Your task to perform on an android device: Open Chrome and go to settings Image 0: 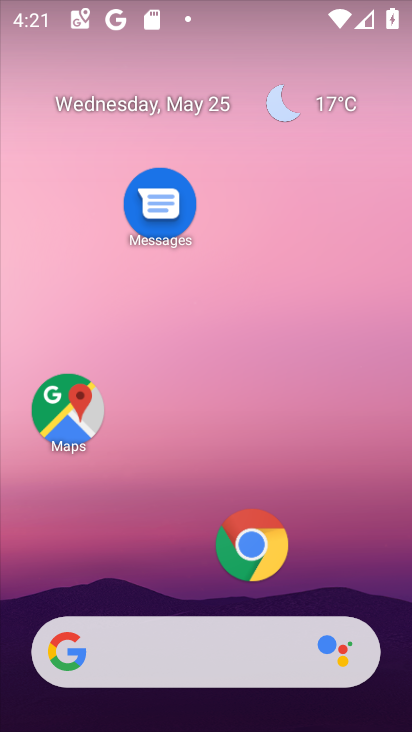
Step 0: click (266, 561)
Your task to perform on an android device: Open Chrome and go to settings Image 1: 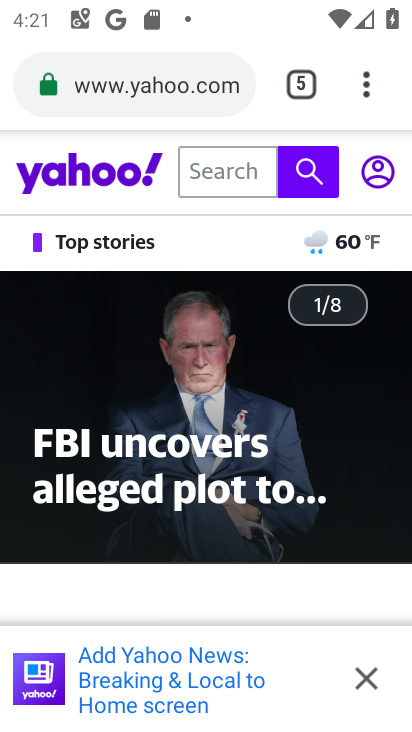
Step 1: click (376, 74)
Your task to perform on an android device: Open Chrome and go to settings Image 2: 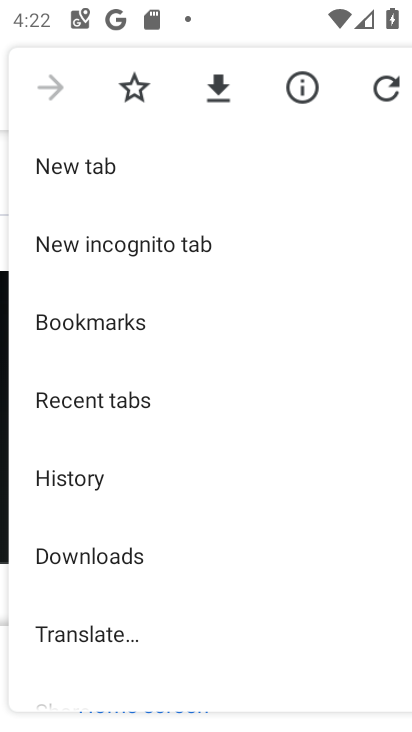
Step 2: drag from (212, 612) to (241, 190)
Your task to perform on an android device: Open Chrome and go to settings Image 3: 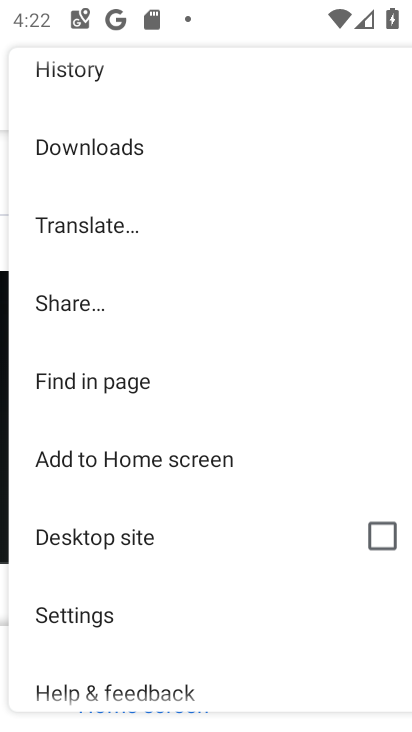
Step 3: click (97, 620)
Your task to perform on an android device: Open Chrome and go to settings Image 4: 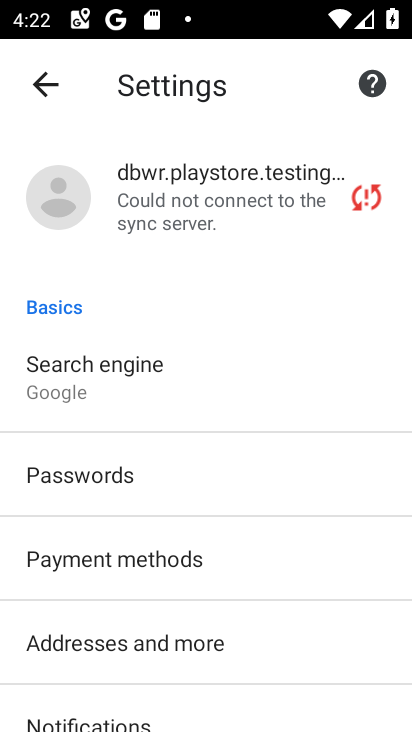
Step 4: task complete